Your task to perform on an android device: When is my next appointment? Image 0: 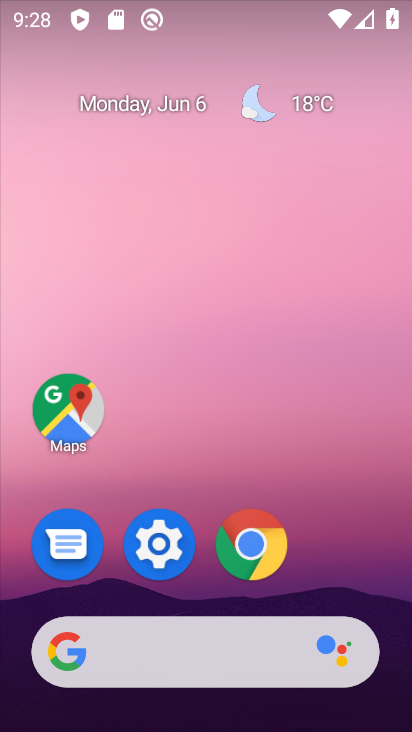
Step 0: drag from (158, 220) to (180, 26)
Your task to perform on an android device: When is my next appointment? Image 1: 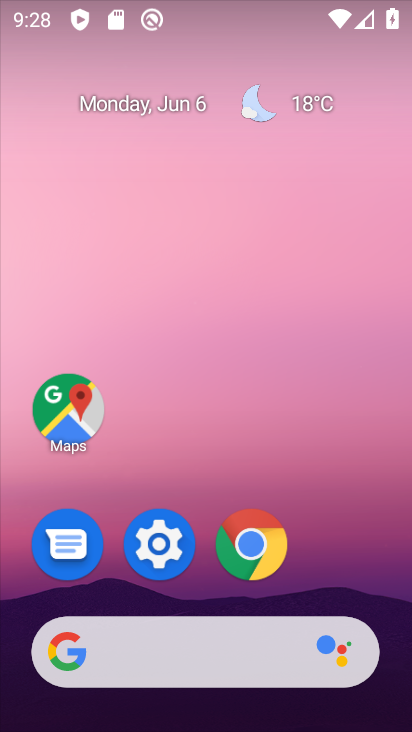
Step 1: drag from (303, 664) to (245, 119)
Your task to perform on an android device: When is my next appointment? Image 2: 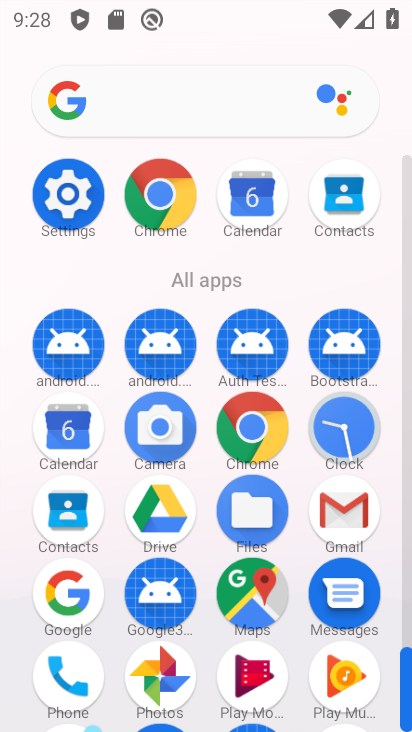
Step 2: click (64, 437)
Your task to perform on an android device: When is my next appointment? Image 3: 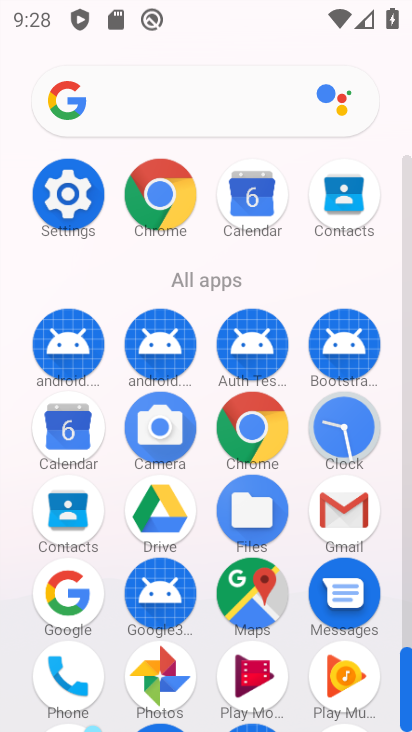
Step 3: click (64, 433)
Your task to perform on an android device: When is my next appointment? Image 4: 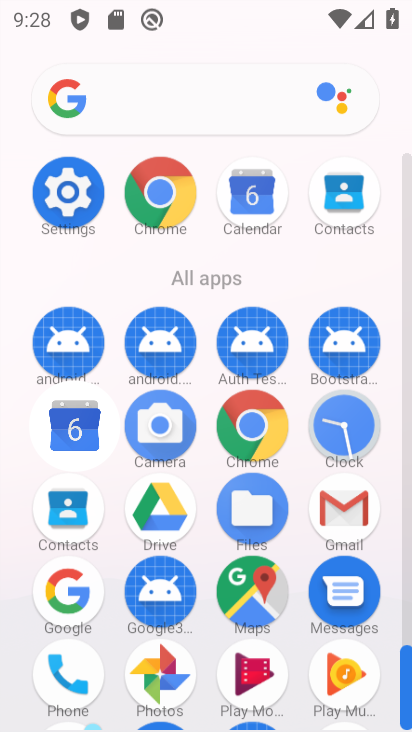
Step 4: click (65, 432)
Your task to perform on an android device: When is my next appointment? Image 5: 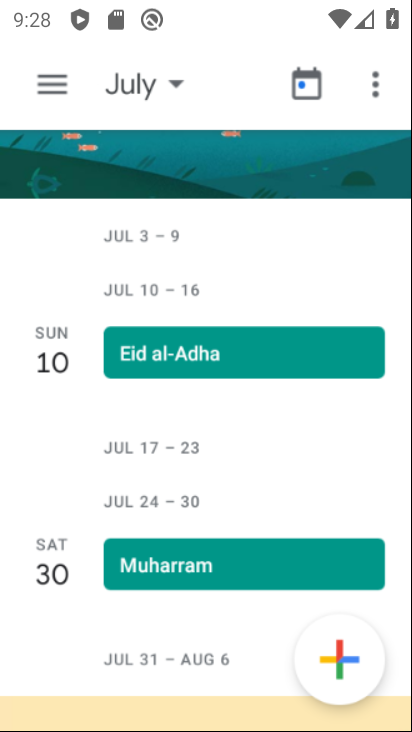
Step 5: click (65, 432)
Your task to perform on an android device: When is my next appointment? Image 6: 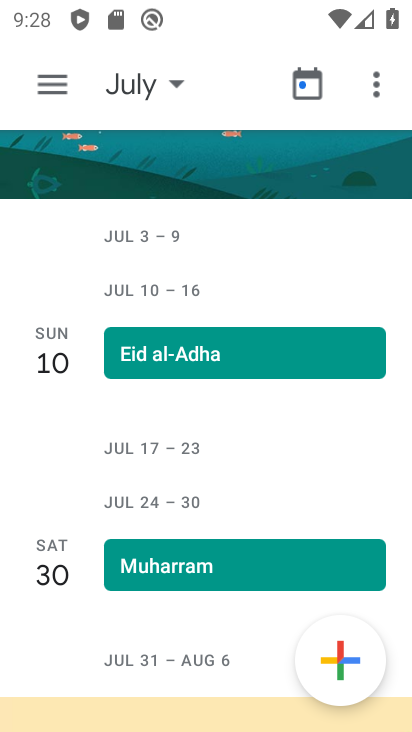
Step 6: click (66, 431)
Your task to perform on an android device: When is my next appointment? Image 7: 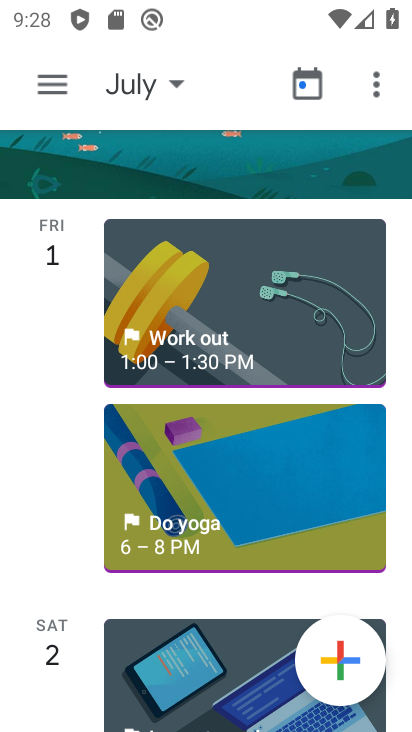
Step 7: drag from (206, 494) to (176, 84)
Your task to perform on an android device: When is my next appointment? Image 8: 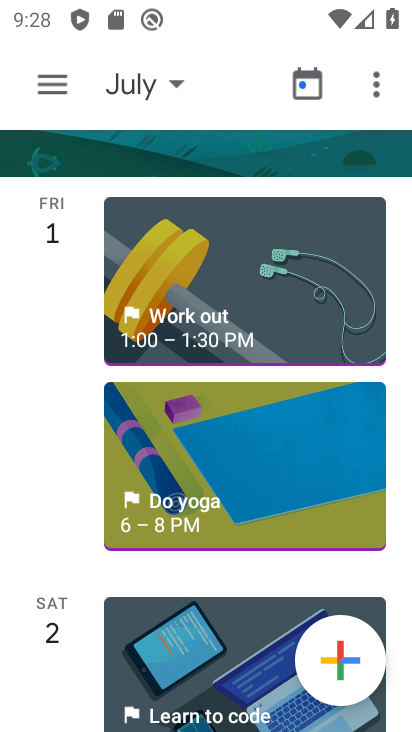
Step 8: click (171, 79)
Your task to perform on an android device: When is my next appointment? Image 9: 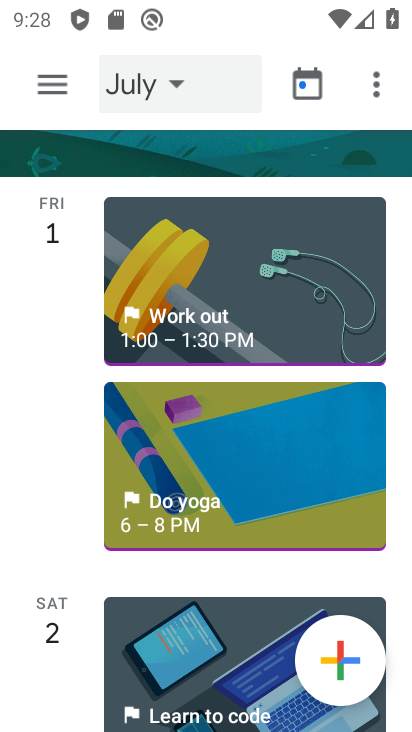
Step 9: click (172, 79)
Your task to perform on an android device: When is my next appointment? Image 10: 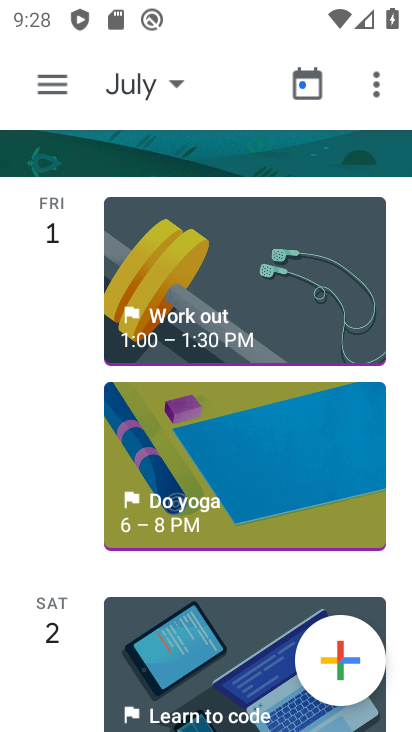
Step 10: click (176, 84)
Your task to perform on an android device: When is my next appointment? Image 11: 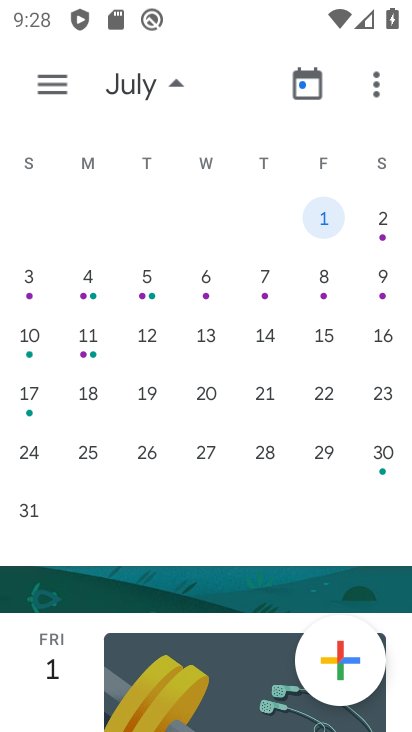
Step 11: drag from (129, 297) to (391, 375)
Your task to perform on an android device: When is my next appointment? Image 12: 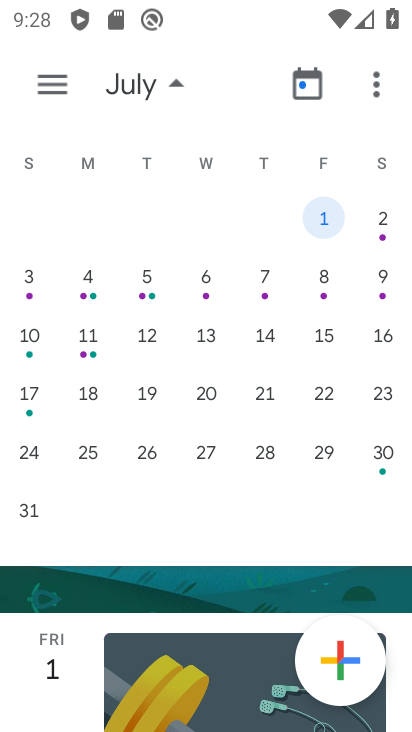
Step 12: drag from (95, 373) to (397, 360)
Your task to perform on an android device: When is my next appointment? Image 13: 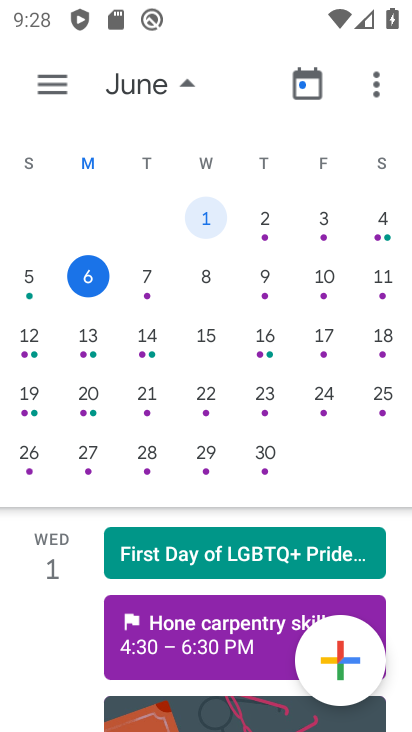
Step 13: drag from (216, 612) to (188, 435)
Your task to perform on an android device: When is my next appointment? Image 14: 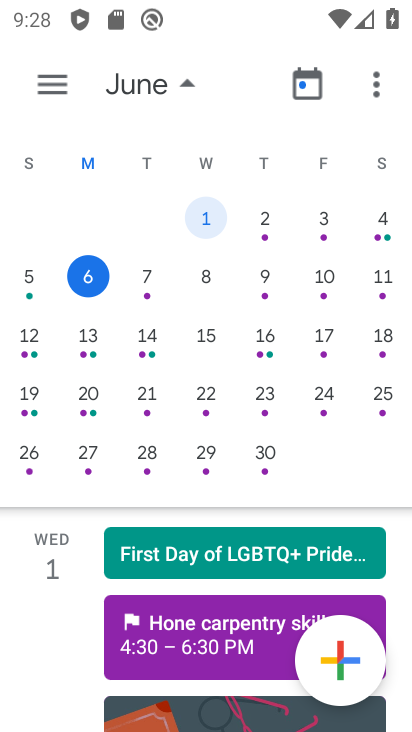
Step 14: drag from (172, 605) to (145, 322)
Your task to perform on an android device: When is my next appointment? Image 15: 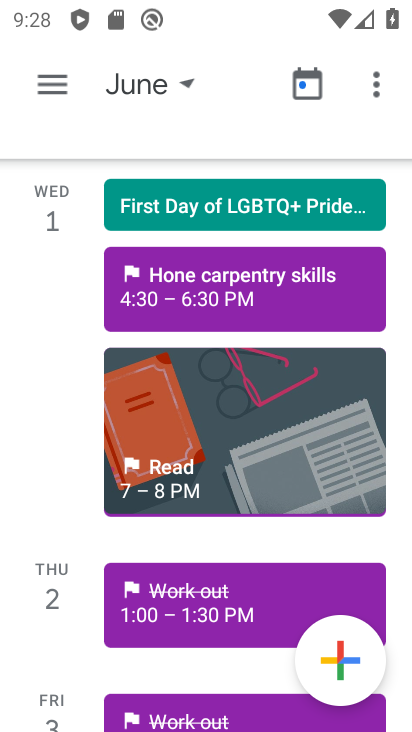
Step 15: drag from (225, 525) to (214, 251)
Your task to perform on an android device: When is my next appointment? Image 16: 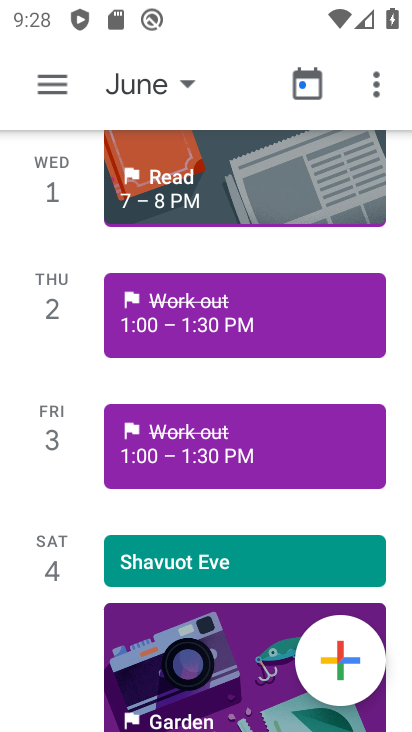
Step 16: drag from (247, 532) to (238, 157)
Your task to perform on an android device: When is my next appointment? Image 17: 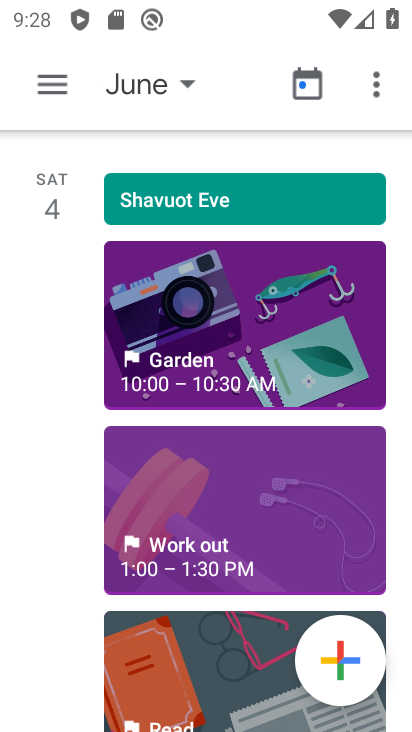
Step 17: drag from (229, 596) to (208, 299)
Your task to perform on an android device: When is my next appointment? Image 18: 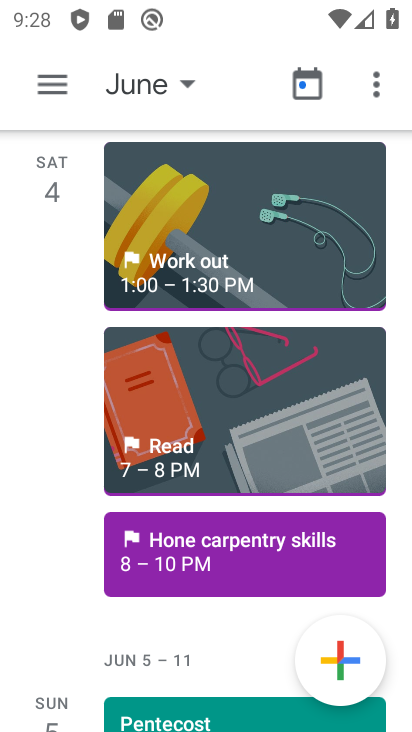
Step 18: drag from (181, 525) to (168, 380)
Your task to perform on an android device: When is my next appointment? Image 19: 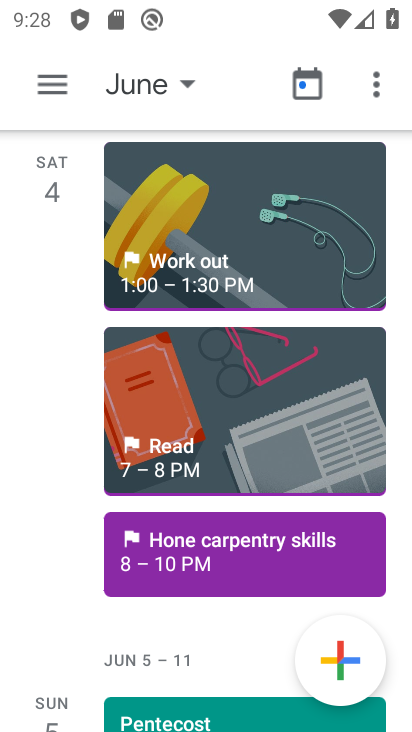
Step 19: drag from (204, 592) to (160, 305)
Your task to perform on an android device: When is my next appointment? Image 20: 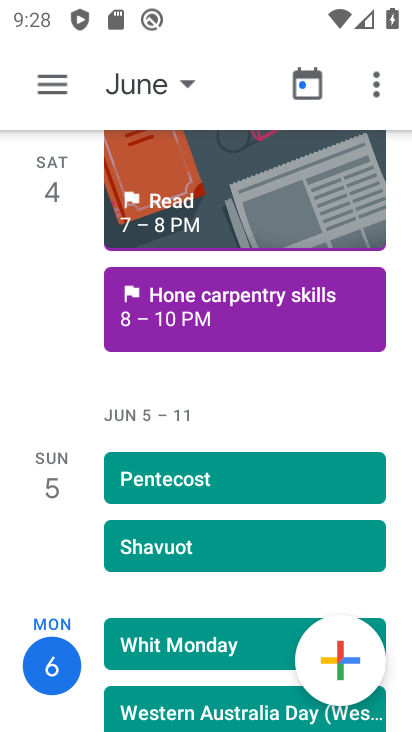
Step 20: drag from (209, 504) to (156, 283)
Your task to perform on an android device: When is my next appointment? Image 21: 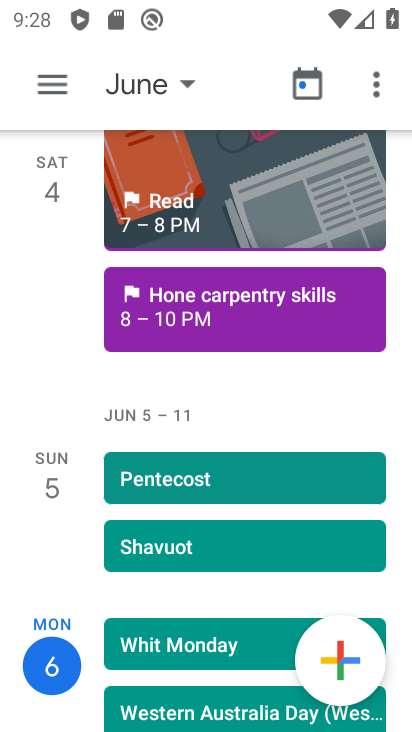
Step 21: click (209, 338)
Your task to perform on an android device: When is my next appointment? Image 22: 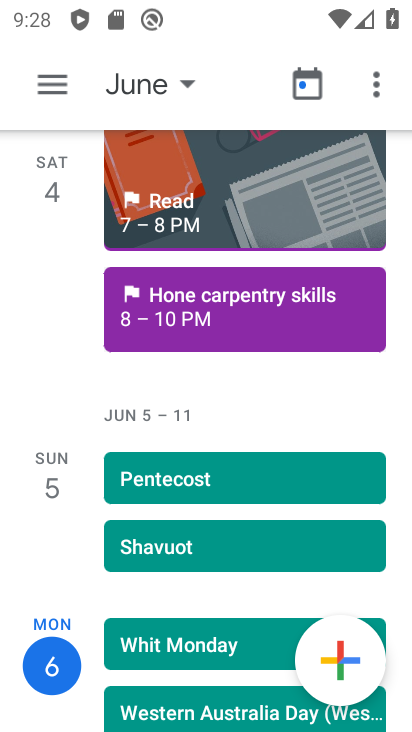
Step 22: task complete